Your task to perform on an android device: See recent photos Image 0: 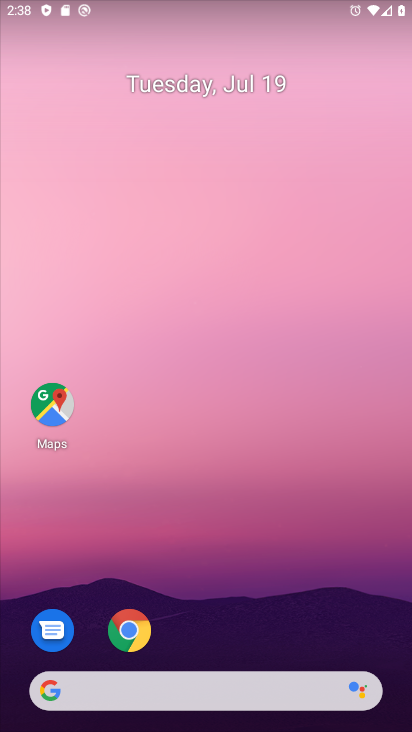
Step 0: drag from (228, 578) to (263, 84)
Your task to perform on an android device: See recent photos Image 1: 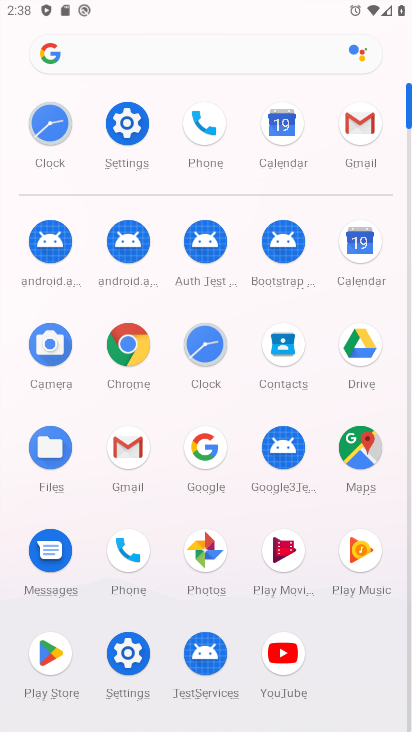
Step 1: click (207, 555)
Your task to perform on an android device: See recent photos Image 2: 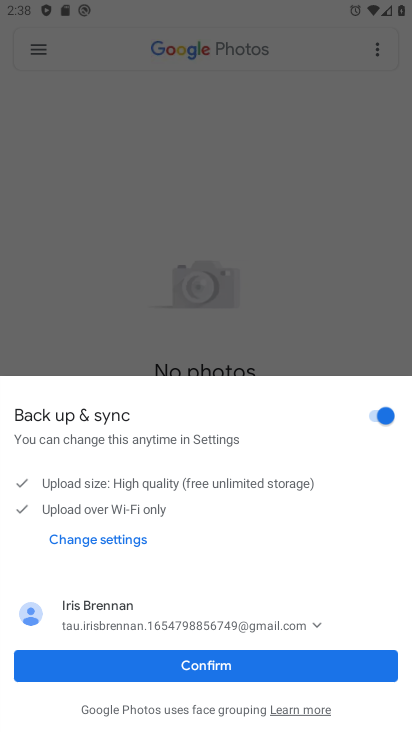
Step 2: click (284, 667)
Your task to perform on an android device: See recent photos Image 3: 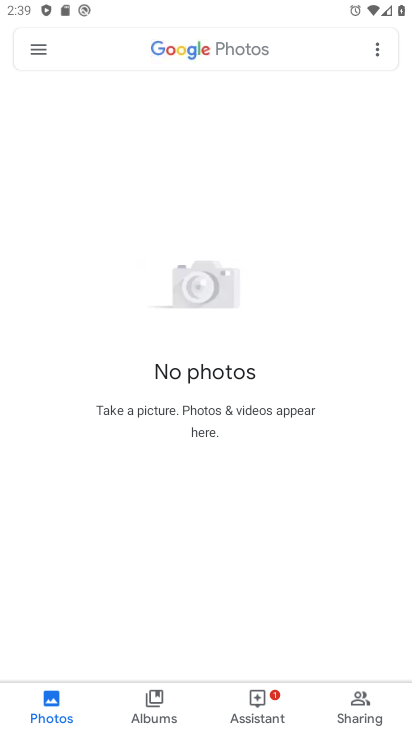
Step 3: task complete